Your task to perform on an android device: change the clock display to show seconds Image 0: 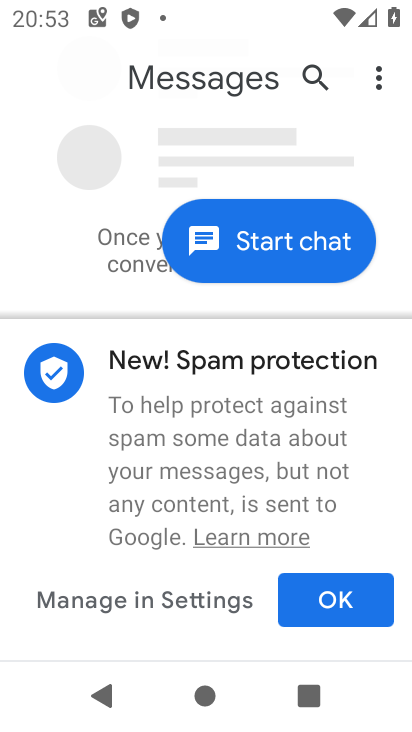
Step 0: press home button
Your task to perform on an android device: change the clock display to show seconds Image 1: 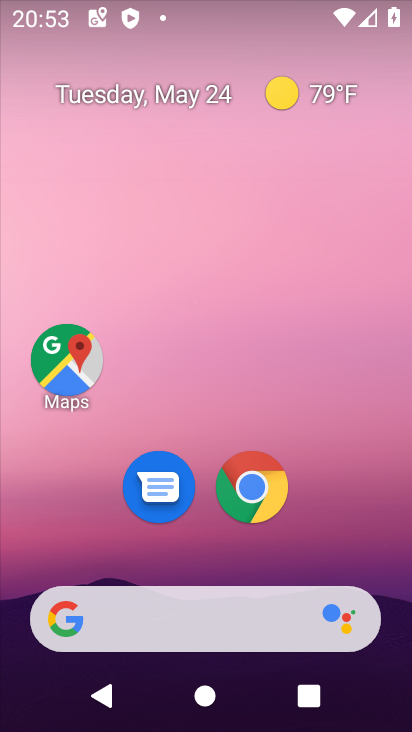
Step 1: drag from (352, 517) to (350, 47)
Your task to perform on an android device: change the clock display to show seconds Image 2: 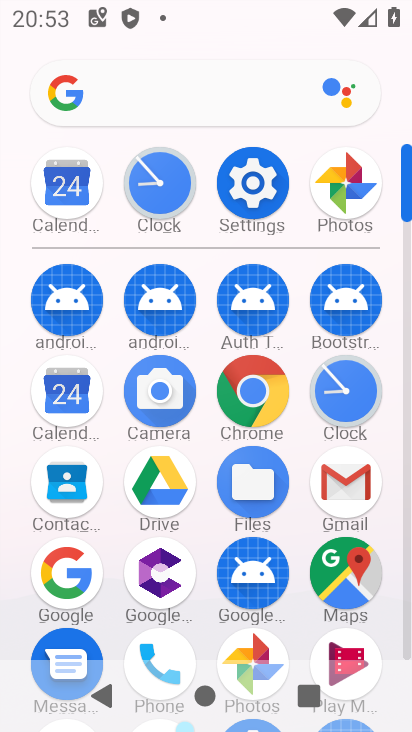
Step 2: click (339, 408)
Your task to perform on an android device: change the clock display to show seconds Image 3: 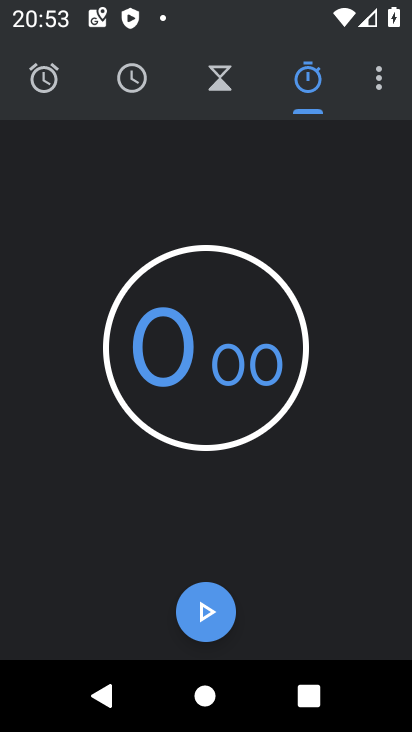
Step 3: click (387, 81)
Your task to perform on an android device: change the clock display to show seconds Image 4: 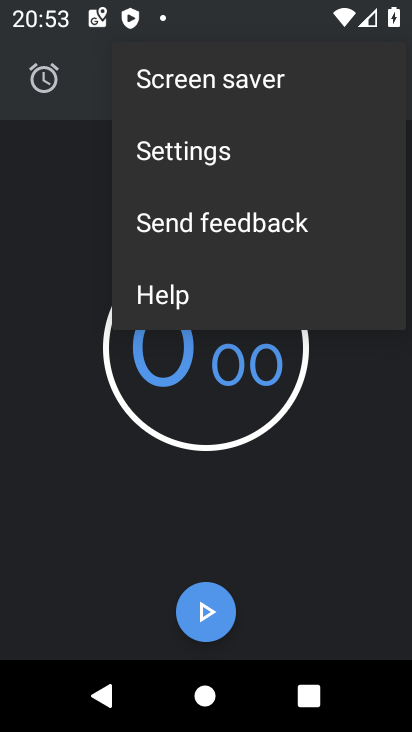
Step 4: click (216, 172)
Your task to perform on an android device: change the clock display to show seconds Image 5: 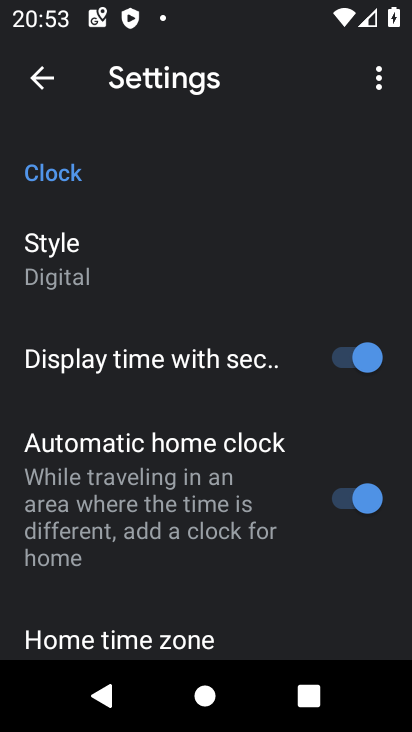
Step 5: task complete